Your task to perform on an android device: toggle priority inbox in the gmail app Image 0: 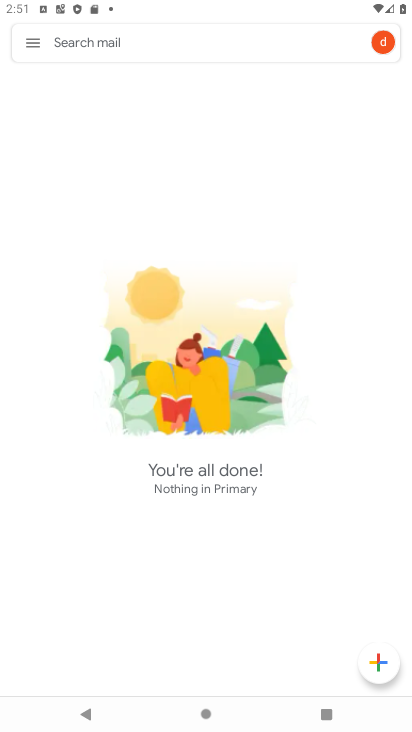
Step 0: press home button
Your task to perform on an android device: toggle priority inbox in the gmail app Image 1: 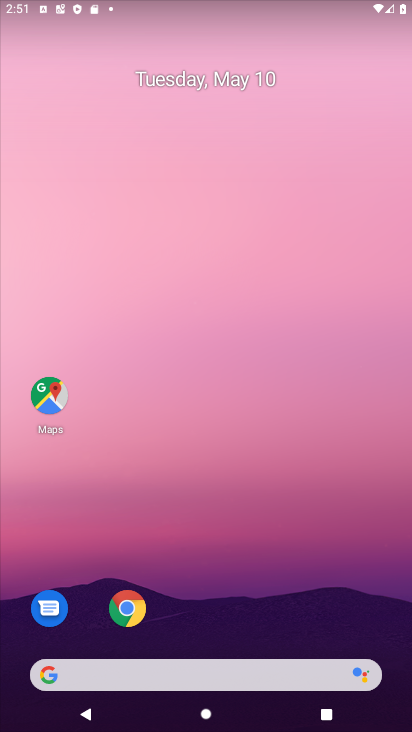
Step 1: drag from (324, 619) to (252, 156)
Your task to perform on an android device: toggle priority inbox in the gmail app Image 2: 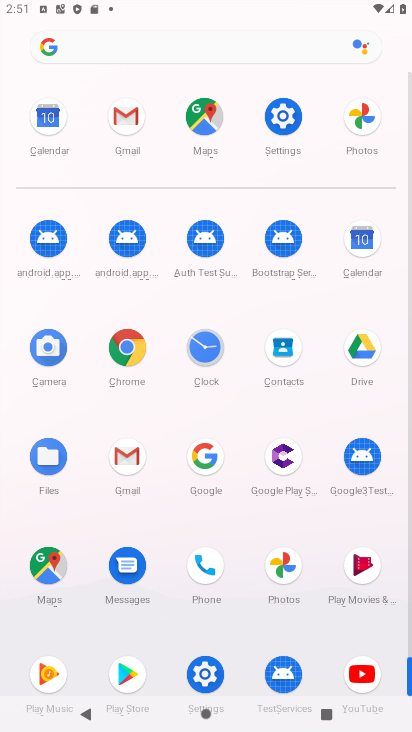
Step 2: click (127, 454)
Your task to perform on an android device: toggle priority inbox in the gmail app Image 3: 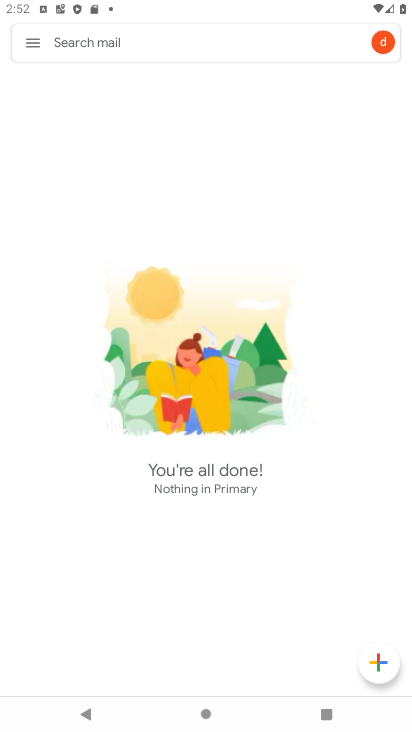
Step 3: click (27, 35)
Your task to perform on an android device: toggle priority inbox in the gmail app Image 4: 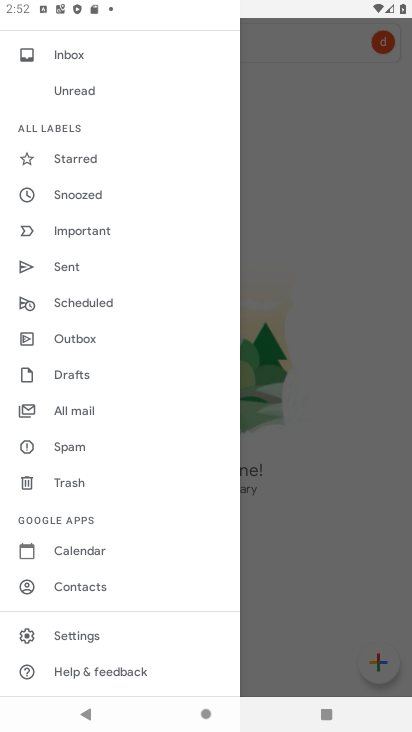
Step 4: click (76, 627)
Your task to perform on an android device: toggle priority inbox in the gmail app Image 5: 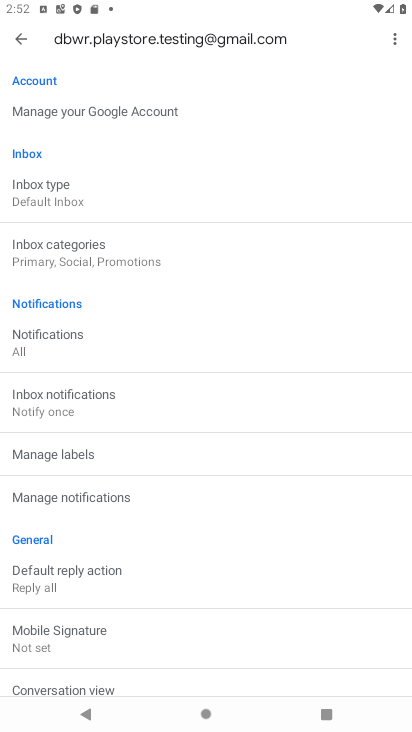
Step 5: drag from (180, 598) to (163, 630)
Your task to perform on an android device: toggle priority inbox in the gmail app Image 6: 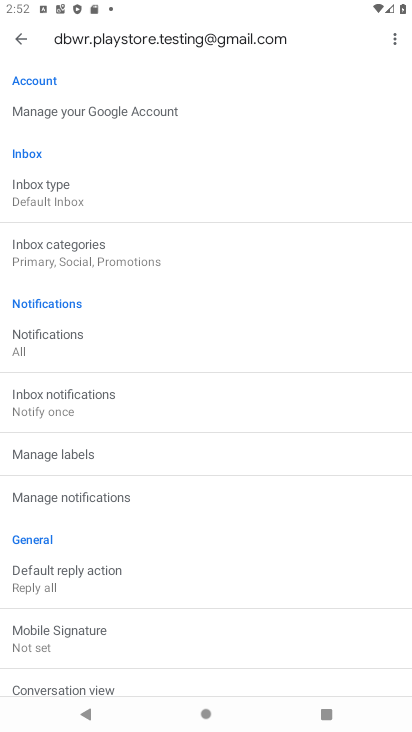
Step 6: click (39, 180)
Your task to perform on an android device: toggle priority inbox in the gmail app Image 7: 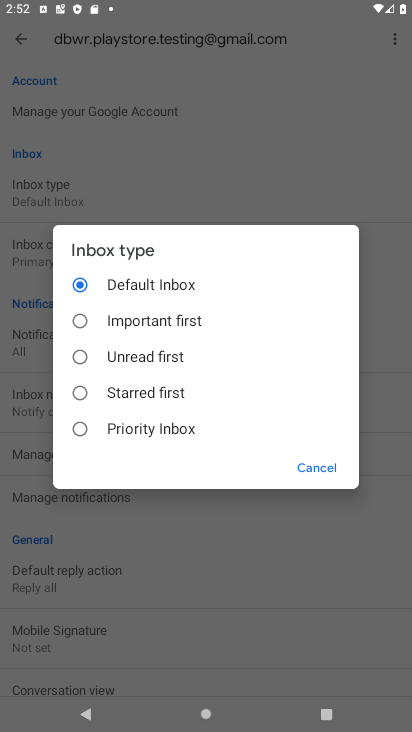
Step 7: click (88, 429)
Your task to perform on an android device: toggle priority inbox in the gmail app Image 8: 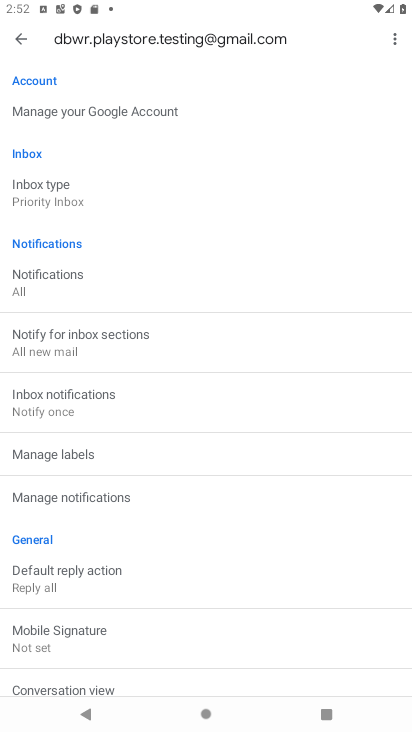
Step 8: task complete